Your task to perform on an android device: Open calendar and show me the third week of next month Image 0: 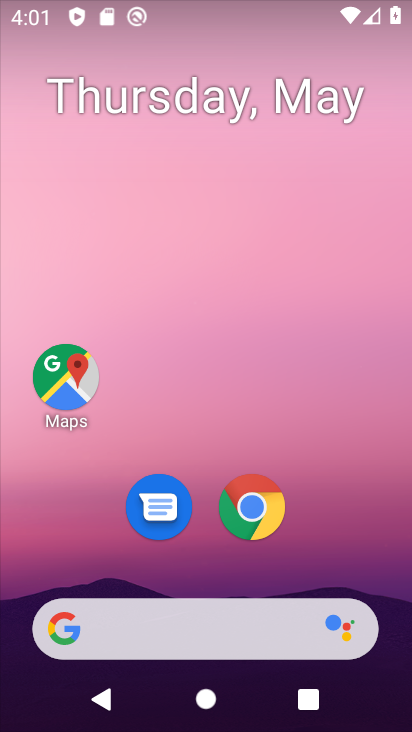
Step 0: drag from (234, 570) to (262, 110)
Your task to perform on an android device: Open calendar and show me the third week of next month Image 1: 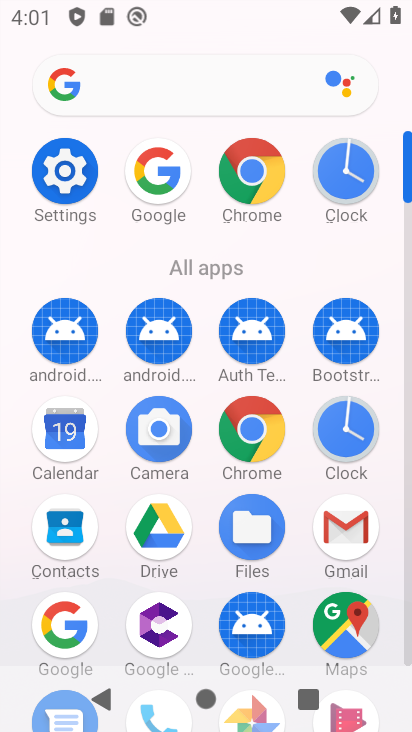
Step 1: click (70, 438)
Your task to perform on an android device: Open calendar and show me the third week of next month Image 2: 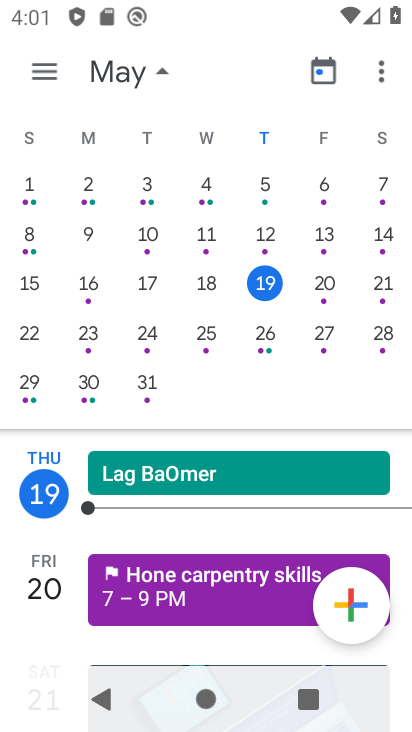
Step 2: drag from (386, 303) to (20, 321)
Your task to perform on an android device: Open calendar and show me the third week of next month Image 3: 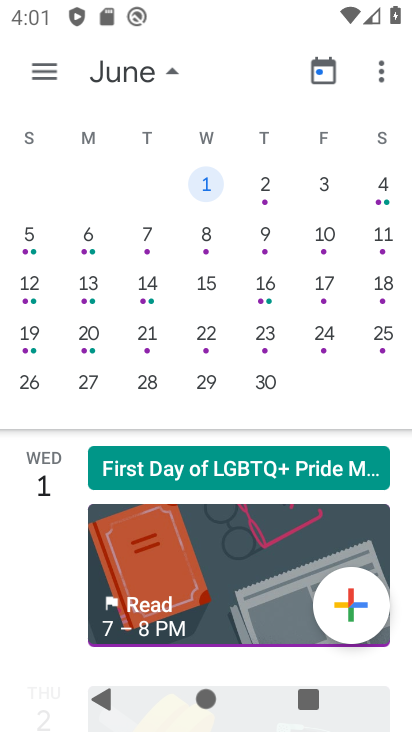
Step 3: click (33, 291)
Your task to perform on an android device: Open calendar and show me the third week of next month Image 4: 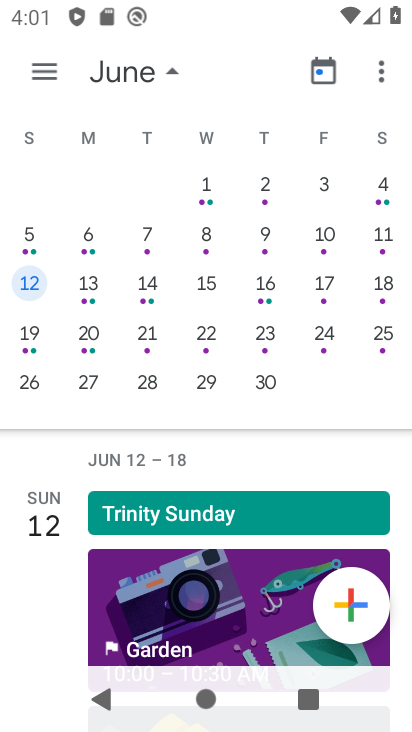
Step 4: task complete